Your task to perform on an android device: delete the emails in spam in the gmail app Image 0: 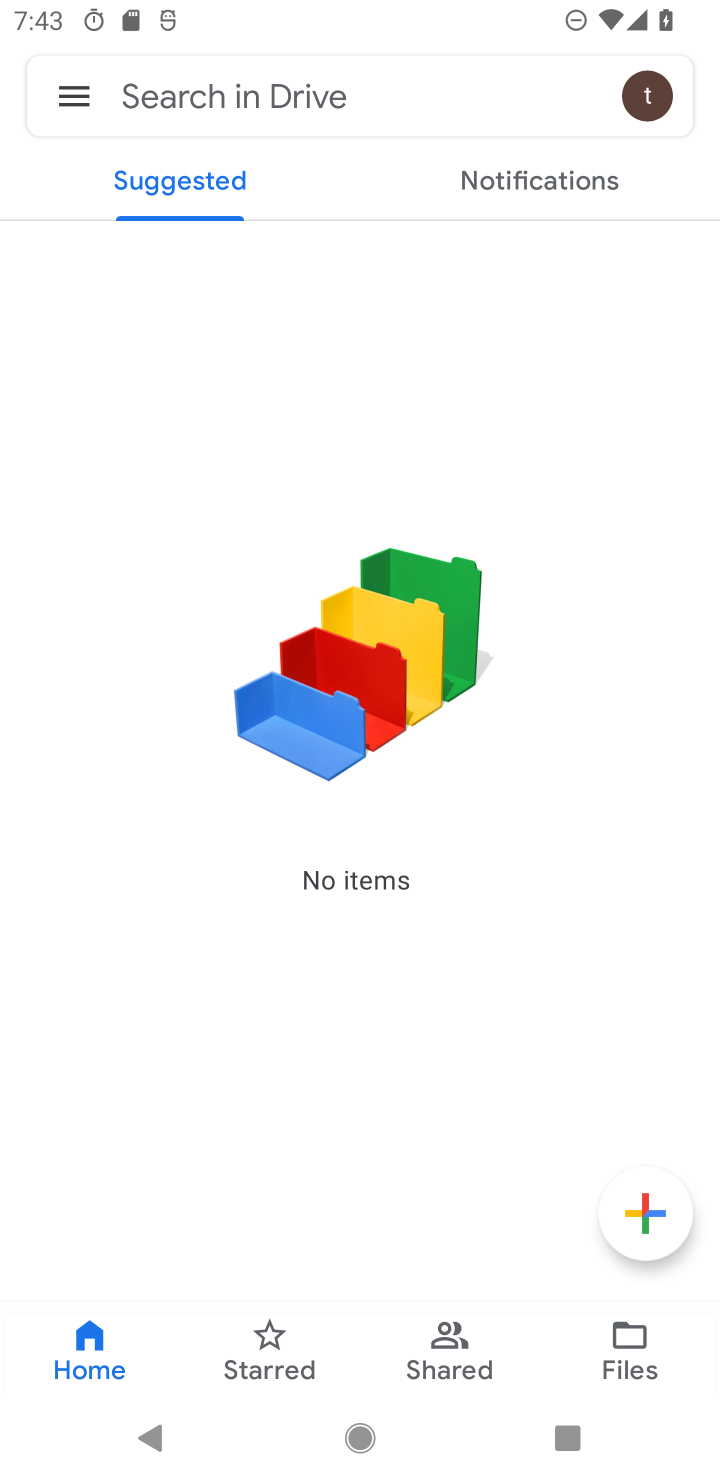
Step 0: press home button
Your task to perform on an android device: delete the emails in spam in the gmail app Image 1: 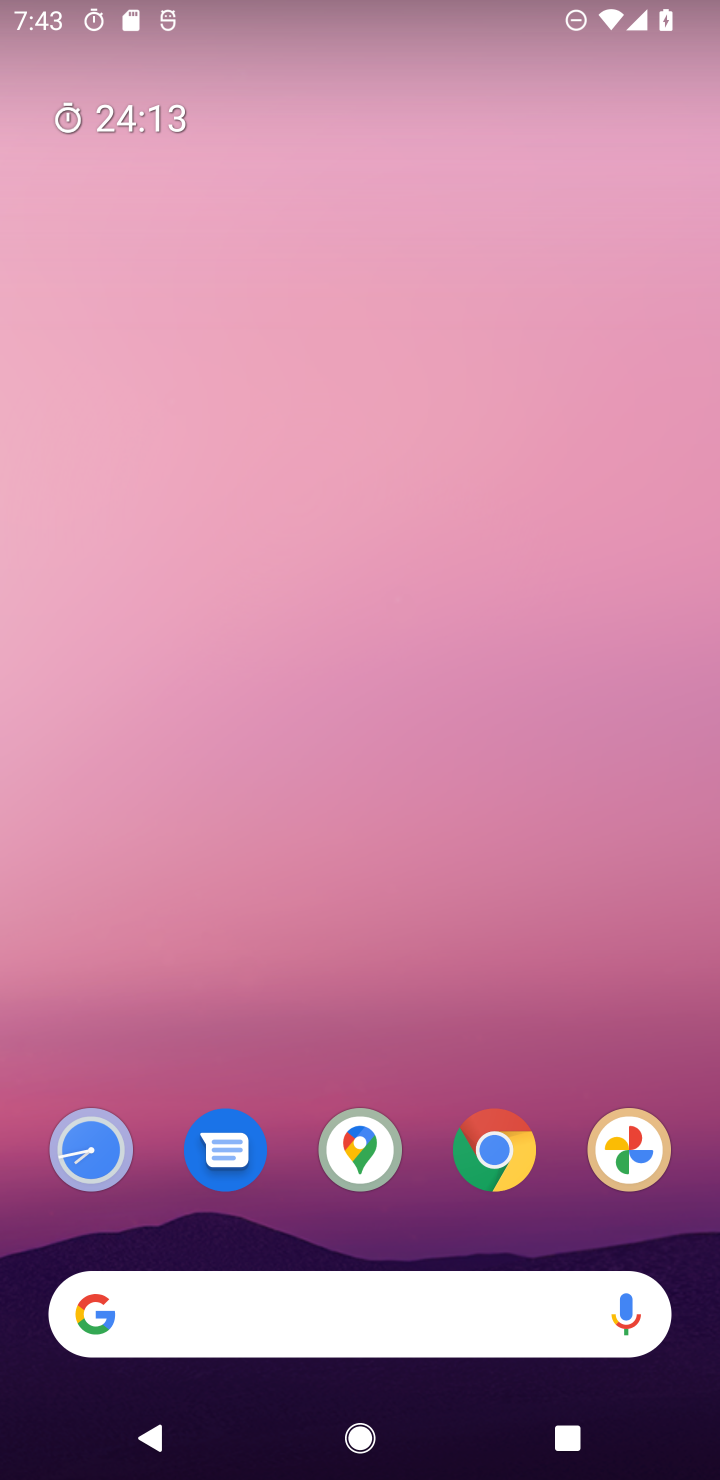
Step 1: drag from (427, 1258) to (610, 33)
Your task to perform on an android device: delete the emails in spam in the gmail app Image 2: 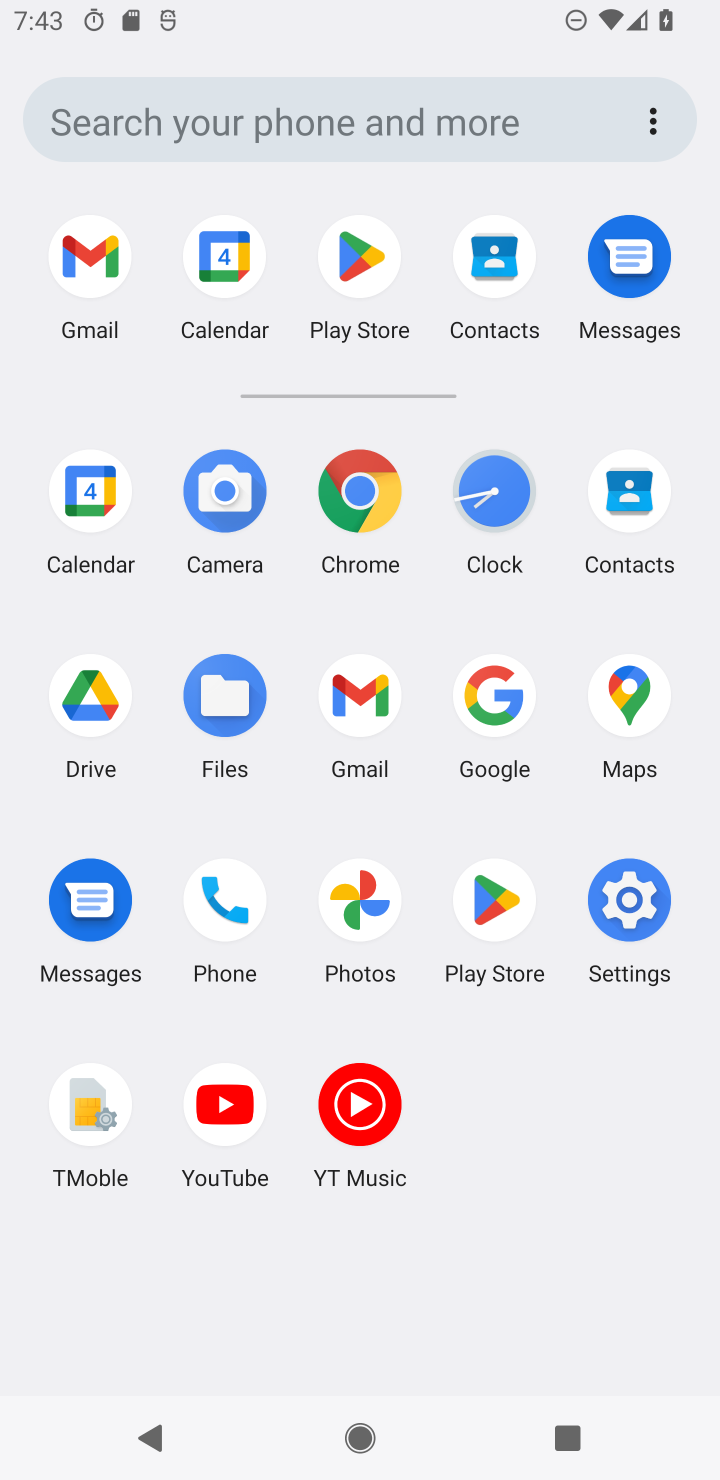
Step 2: click (362, 690)
Your task to perform on an android device: delete the emails in spam in the gmail app Image 3: 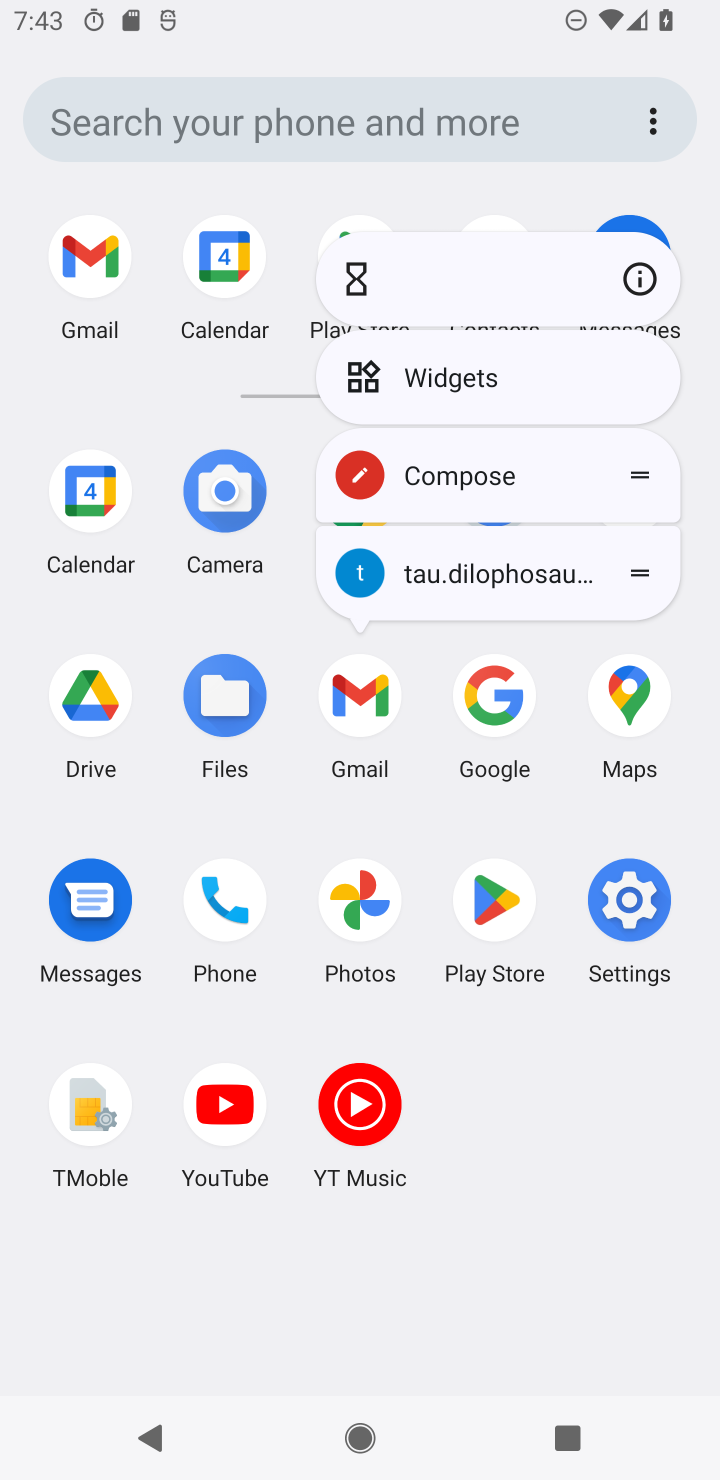
Step 3: click (363, 702)
Your task to perform on an android device: delete the emails in spam in the gmail app Image 4: 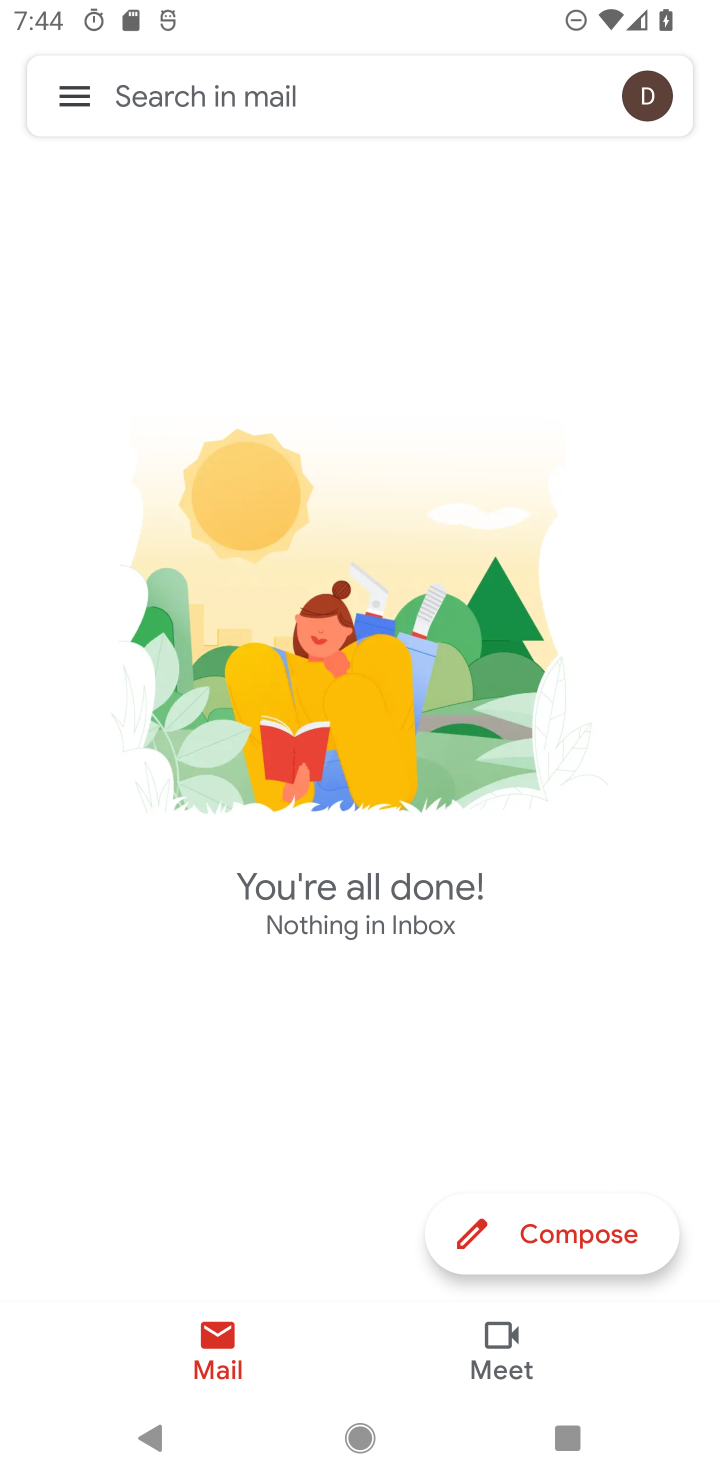
Step 4: click (75, 92)
Your task to perform on an android device: delete the emails in spam in the gmail app Image 5: 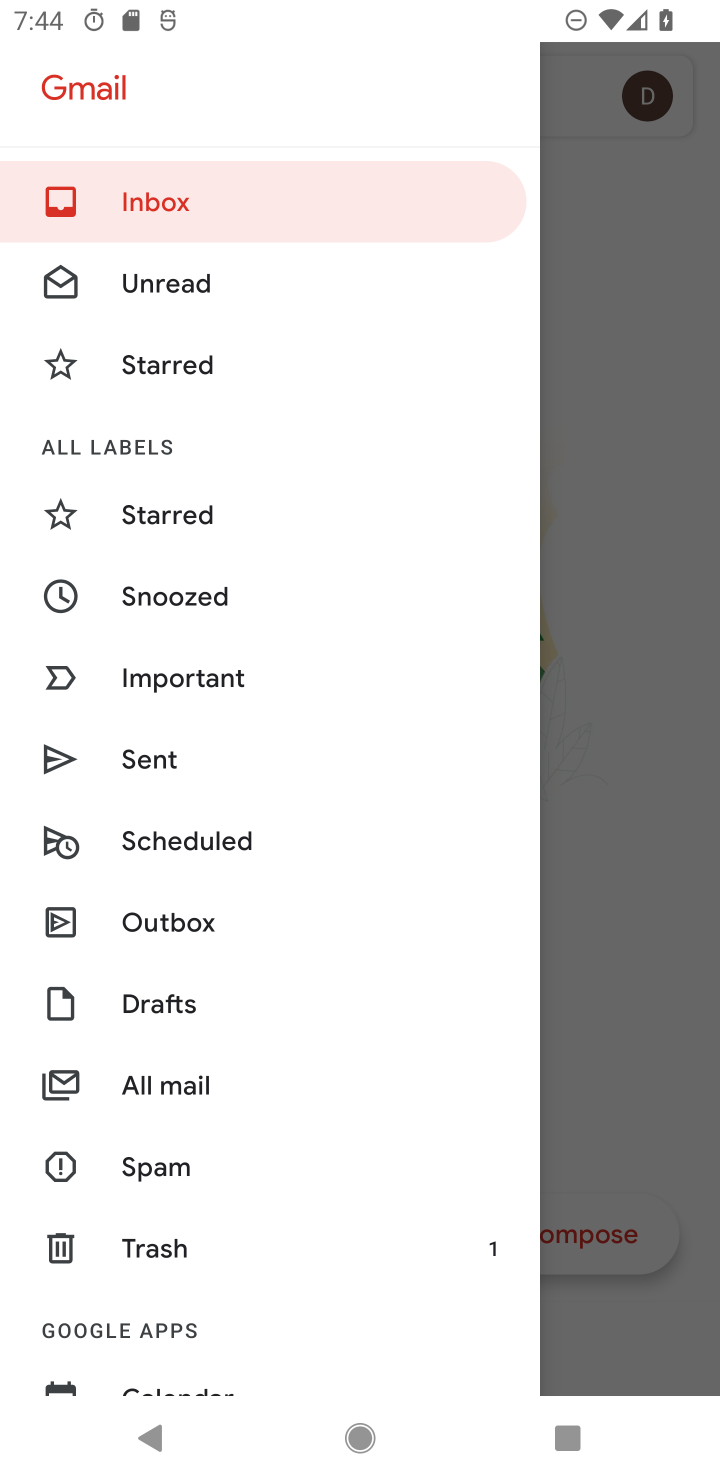
Step 5: drag from (493, 1078) to (444, 637)
Your task to perform on an android device: delete the emails in spam in the gmail app Image 6: 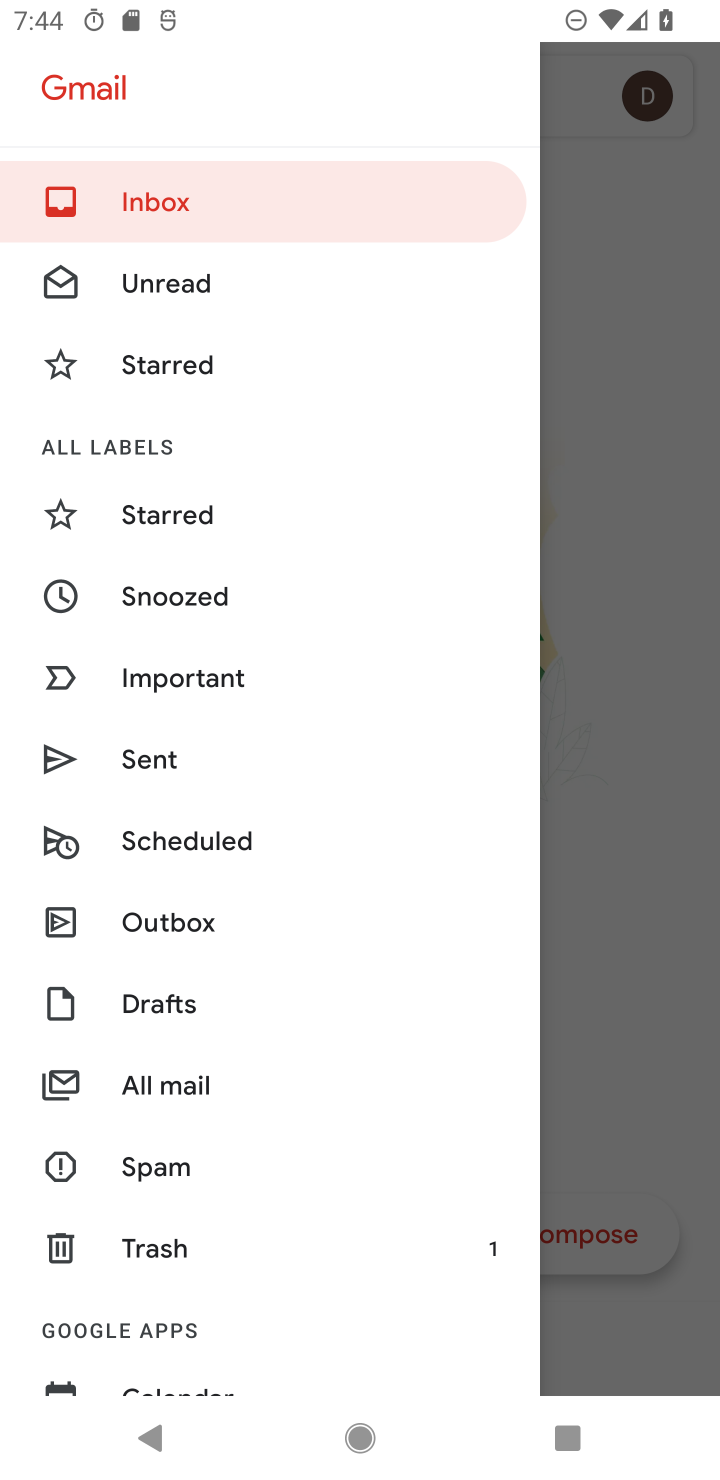
Step 6: click (145, 1165)
Your task to perform on an android device: delete the emails in spam in the gmail app Image 7: 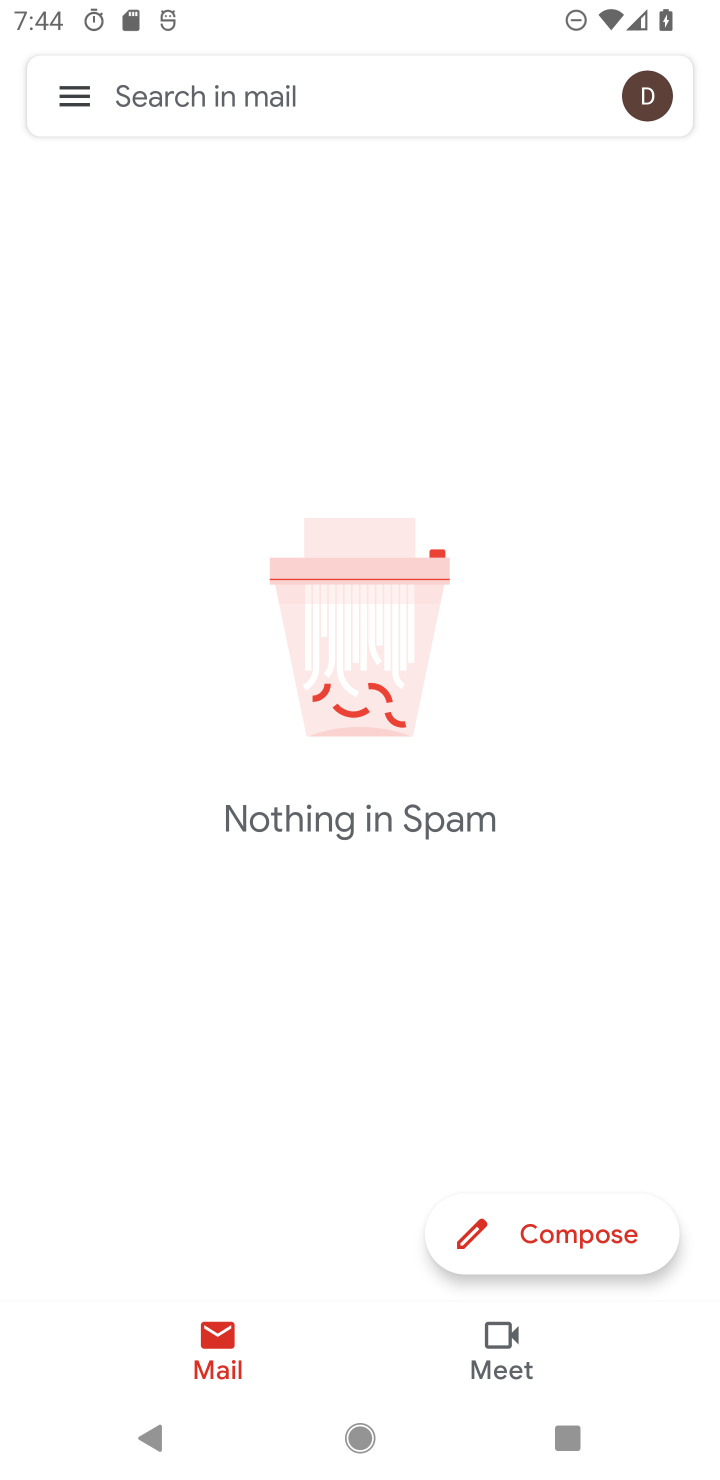
Step 7: task complete